Your task to perform on an android device: Turn off the flashlight Image 0: 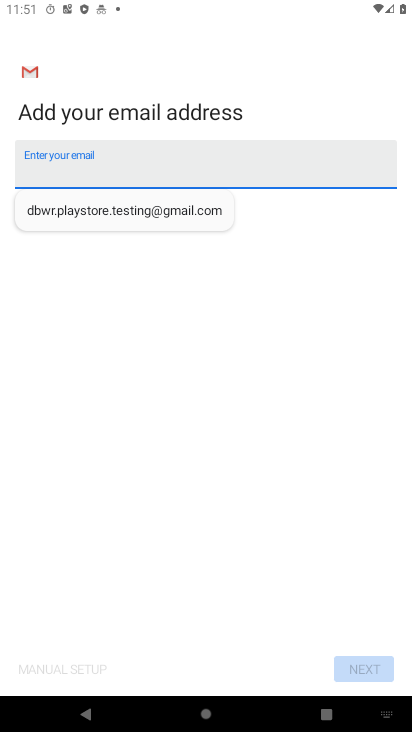
Step 0: drag from (250, 2) to (241, 431)
Your task to perform on an android device: Turn off the flashlight Image 1: 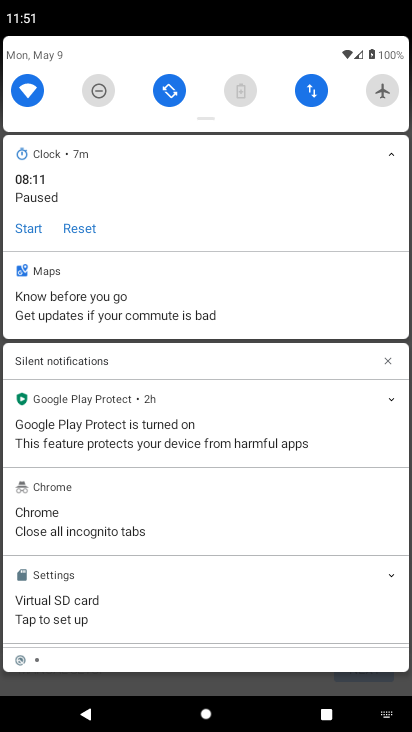
Step 1: task complete